Your task to perform on an android device: open wifi settings Image 0: 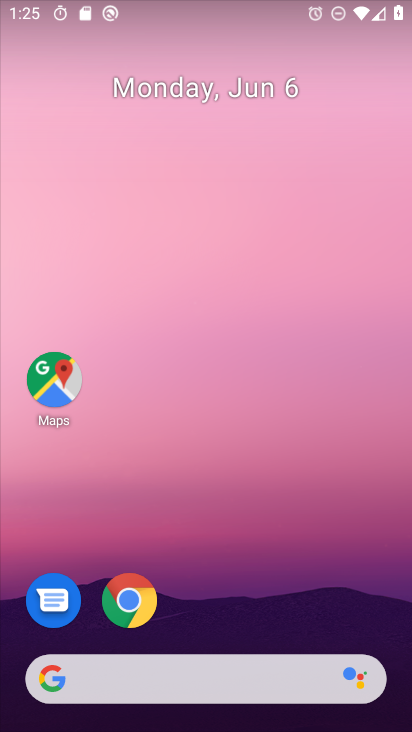
Step 0: drag from (237, 611) to (158, 18)
Your task to perform on an android device: open wifi settings Image 1: 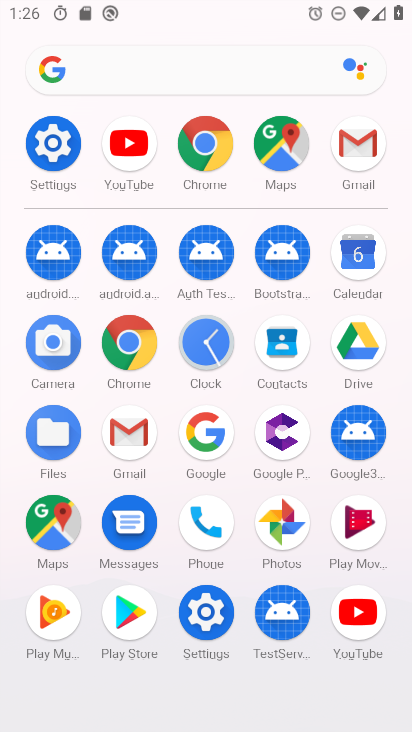
Step 1: click (53, 153)
Your task to perform on an android device: open wifi settings Image 2: 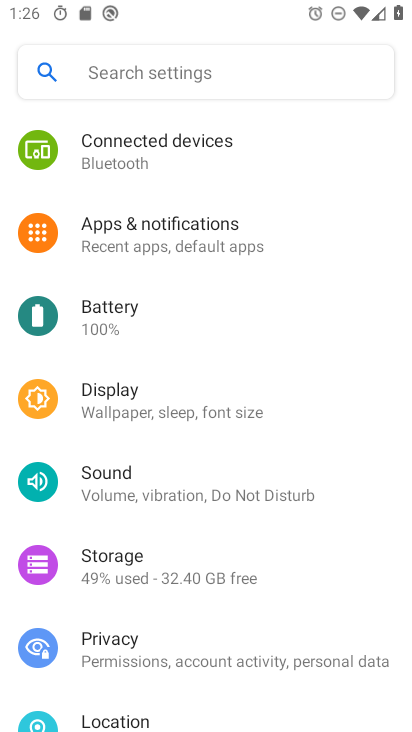
Step 2: drag from (202, 178) to (228, 518)
Your task to perform on an android device: open wifi settings Image 3: 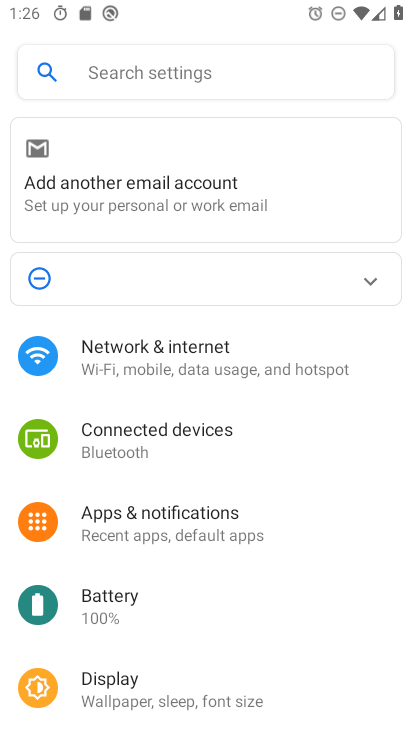
Step 3: click (204, 378)
Your task to perform on an android device: open wifi settings Image 4: 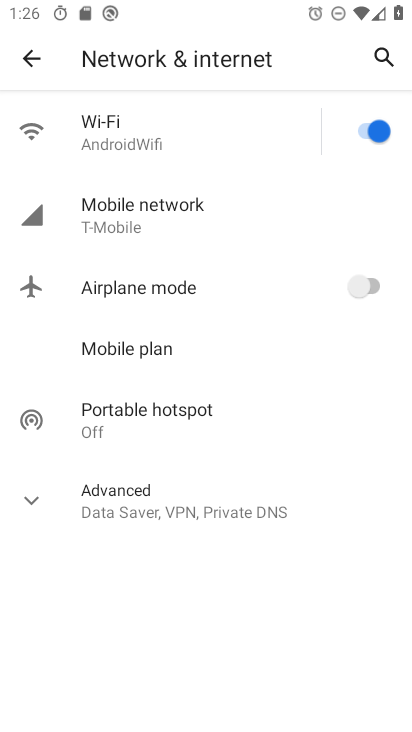
Step 4: click (161, 125)
Your task to perform on an android device: open wifi settings Image 5: 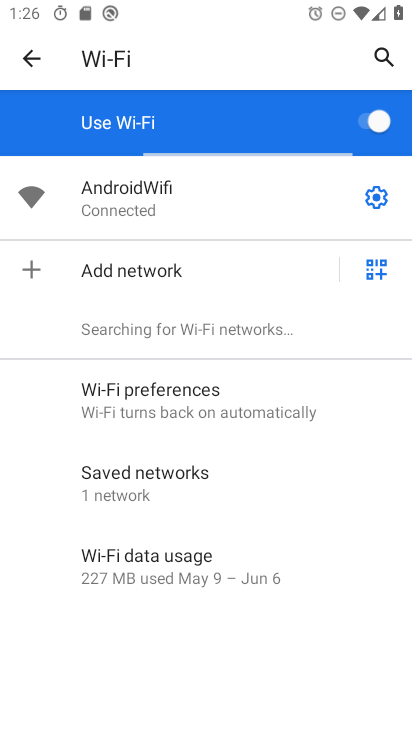
Step 5: task complete